Your task to perform on an android device: add a contact Image 0: 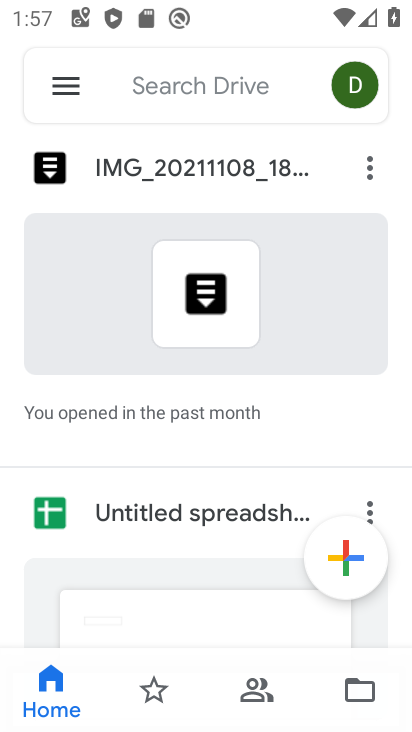
Step 0: press home button
Your task to perform on an android device: add a contact Image 1: 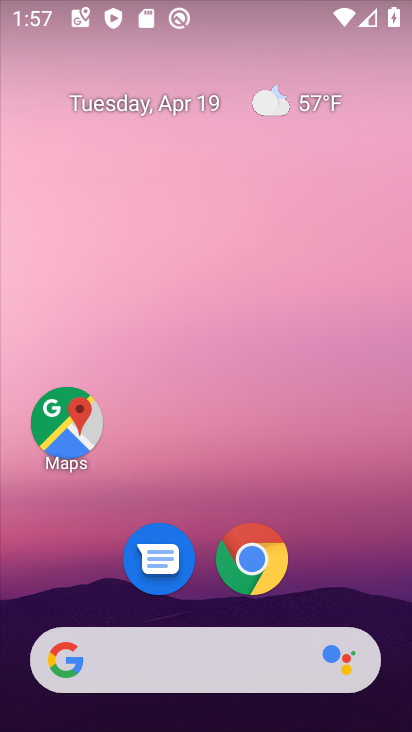
Step 1: drag from (203, 513) to (153, 0)
Your task to perform on an android device: add a contact Image 2: 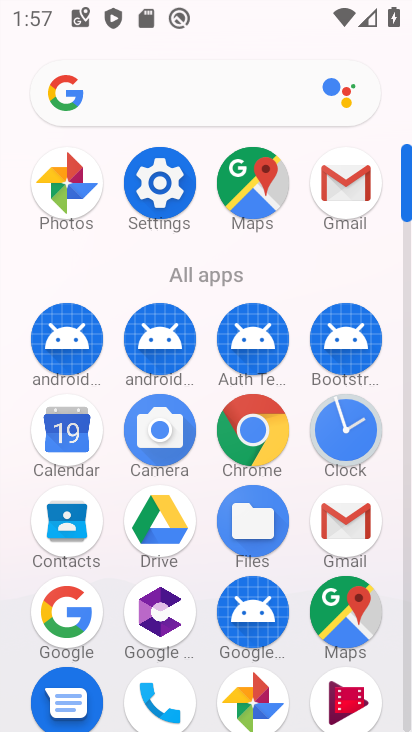
Step 2: click (64, 517)
Your task to perform on an android device: add a contact Image 3: 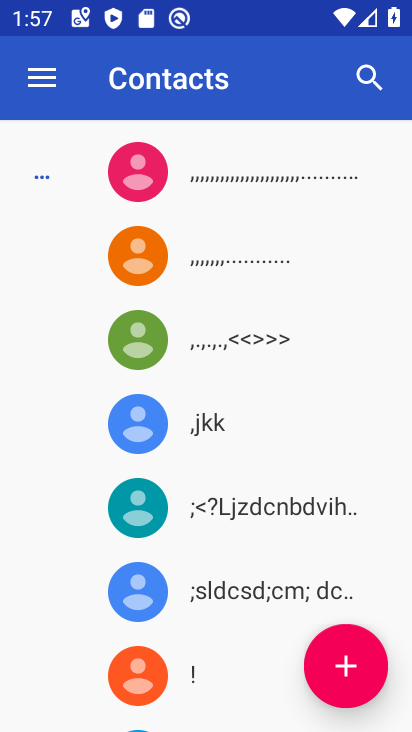
Step 3: click (344, 657)
Your task to perform on an android device: add a contact Image 4: 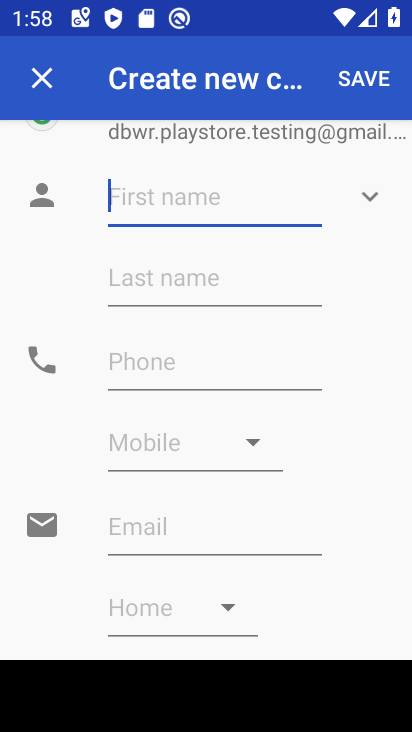
Step 4: type "ccdgfswte"
Your task to perform on an android device: add a contact Image 5: 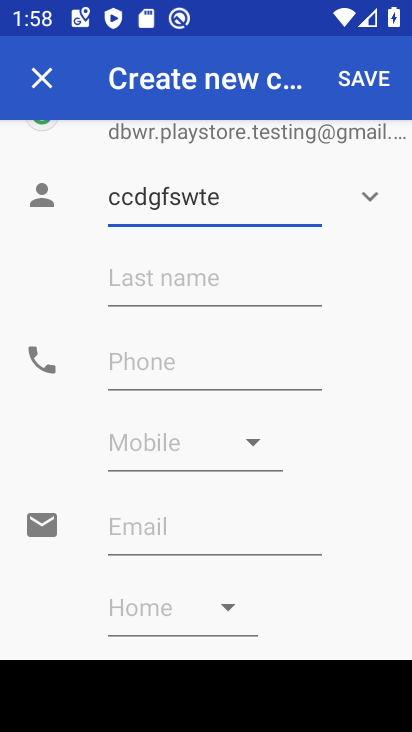
Step 5: click (367, 68)
Your task to perform on an android device: add a contact Image 6: 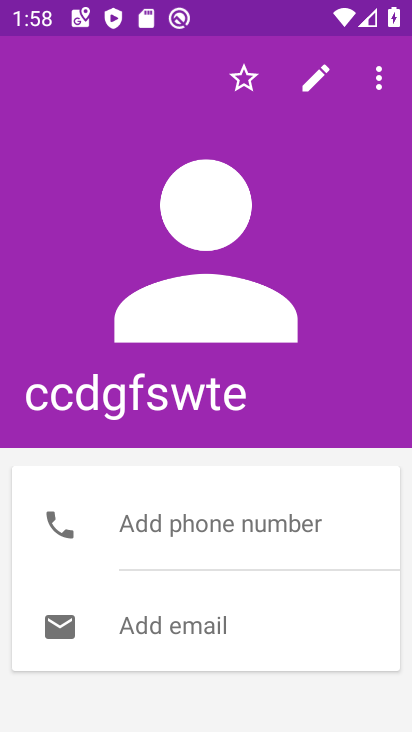
Step 6: task complete